Your task to perform on an android device: remove spam from my inbox in the gmail app Image 0: 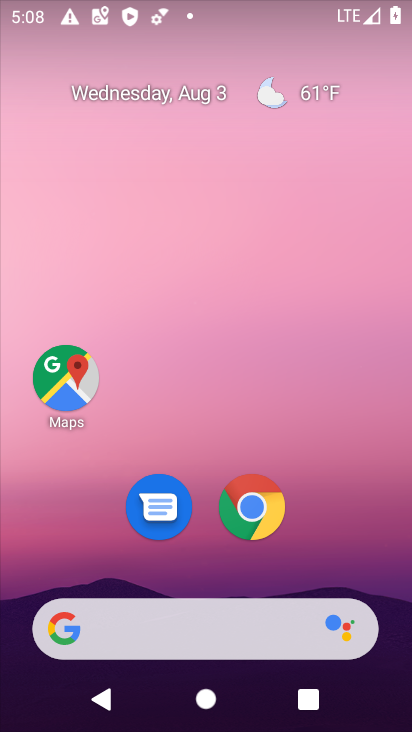
Step 0: drag from (361, 574) to (283, 104)
Your task to perform on an android device: remove spam from my inbox in the gmail app Image 1: 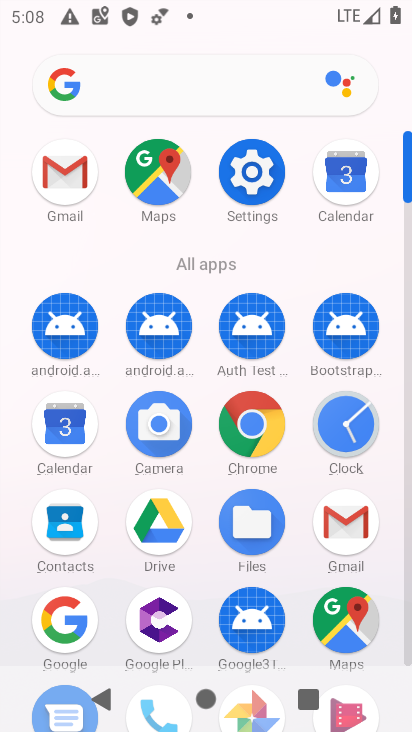
Step 1: drag from (301, 574) to (294, 199)
Your task to perform on an android device: remove spam from my inbox in the gmail app Image 2: 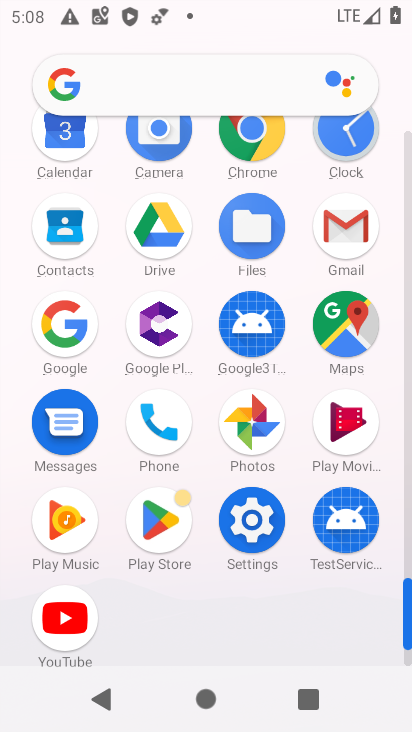
Step 2: click (342, 241)
Your task to perform on an android device: remove spam from my inbox in the gmail app Image 3: 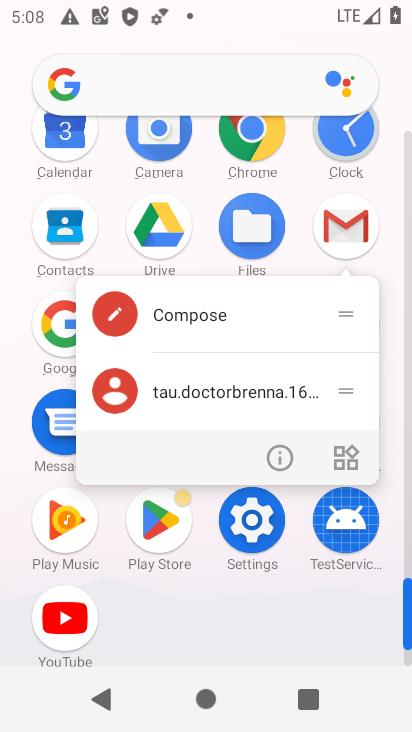
Step 3: click (356, 218)
Your task to perform on an android device: remove spam from my inbox in the gmail app Image 4: 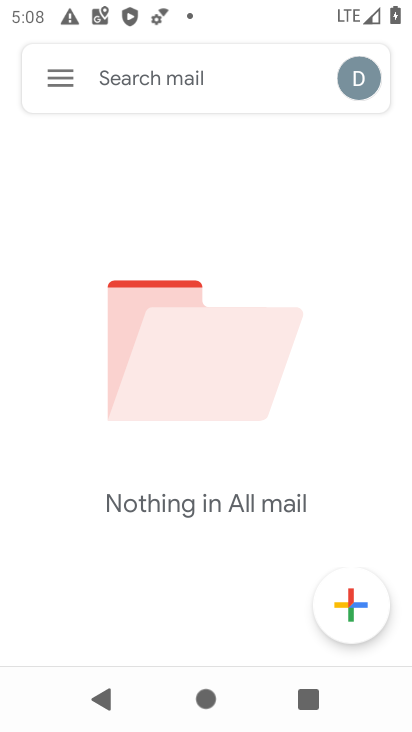
Step 4: click (52, 78)
Your task to perform on an android device: remove spam from my inbox in the gmail app Image 5: 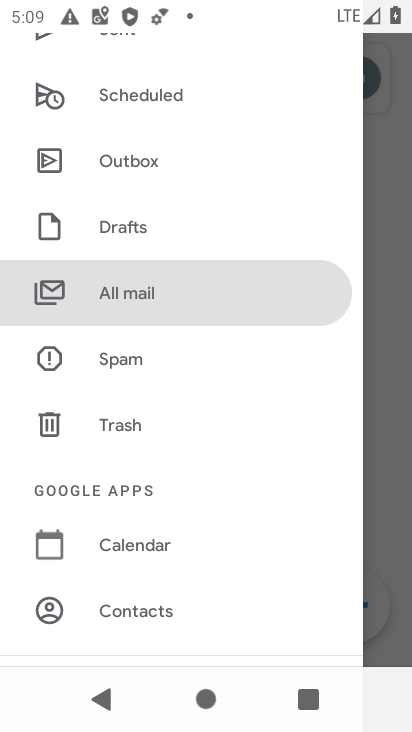
Step 5: drag from (170, 578) to (204, 123)
Your task to perform on an android device: remove spam from my inbox in the gmail app Image 6: 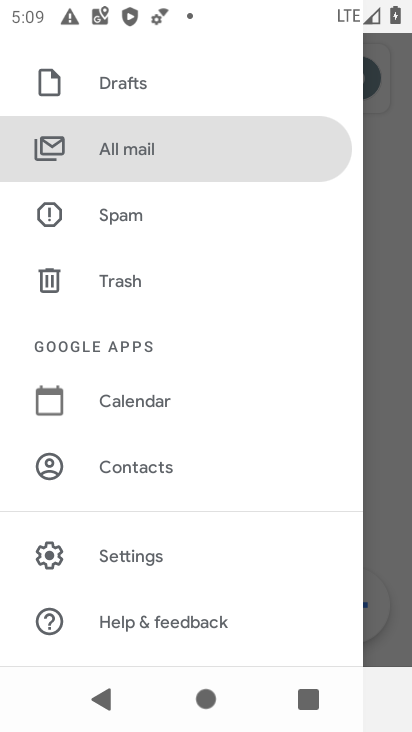
Step 6: click (104, 201)
Your task to perform on an android device: remove spam from my inbox in the gmail app Image 7: 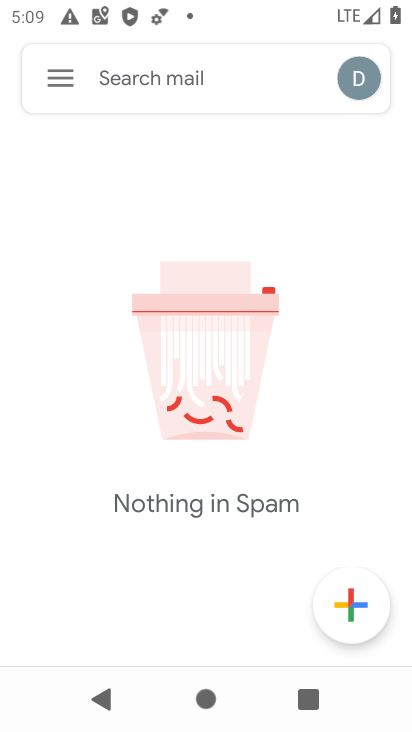
Step 7: click (71, 72)
Your task to perform on an android device: remove spam from my inbox in the gmail app Image 8: 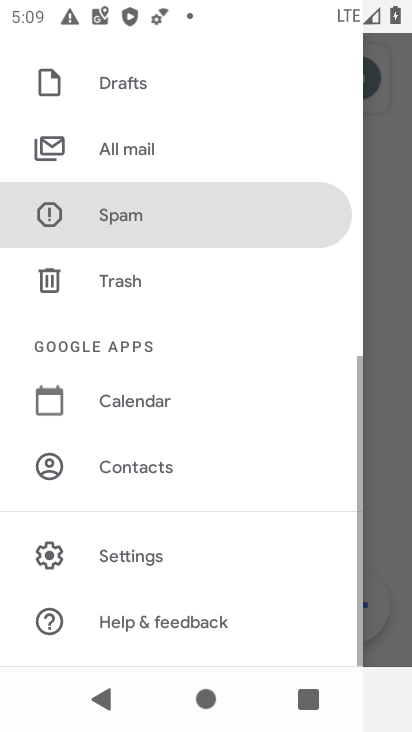
Step 8: drag from (281, 166) to (196, 686)
Your task to perform on an android device: remove spam from my inbox in the gmail app Image 9: 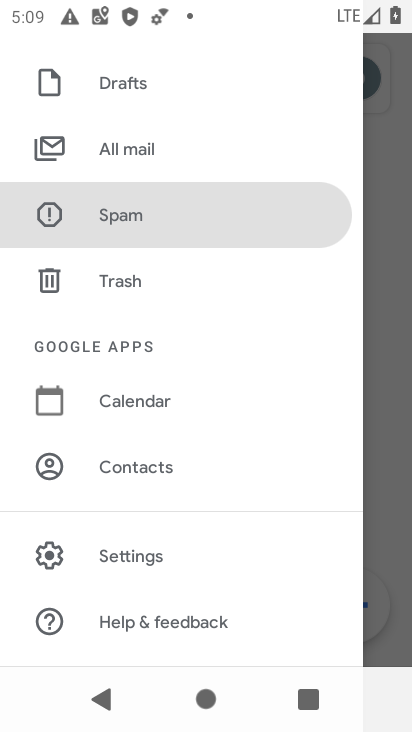
Step 9: drag from (145, 123) to (101, 551)
Your task to perform on an android device: remove spam from my inbox in the gmail app Image 10: 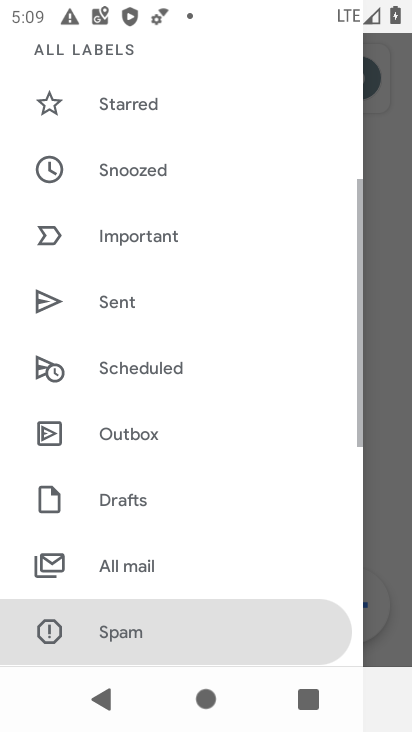
Step 10: drag from (131, 89) to (217, 580)
Your task to perform on an android device: remove spam from my inbox in the gmail app Image 11: 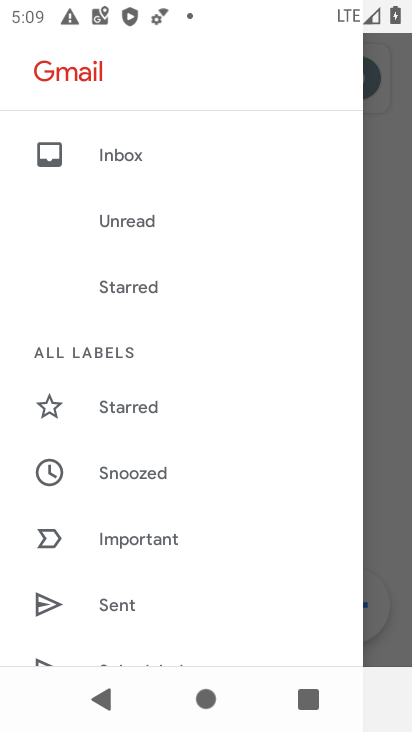
Step 11: click (105, 148)
Your task to perform on an android device: remove spam from my inbox in the gmail app Image 12: 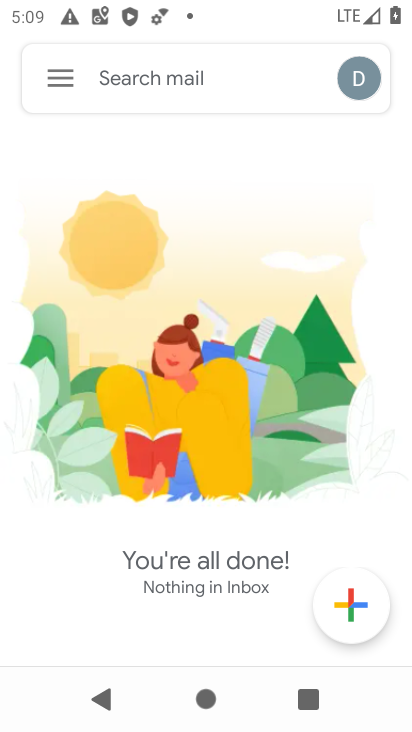
Step 12: task complete